Your task to perform on an android device: see sites visited before in the chrome app Image 0: 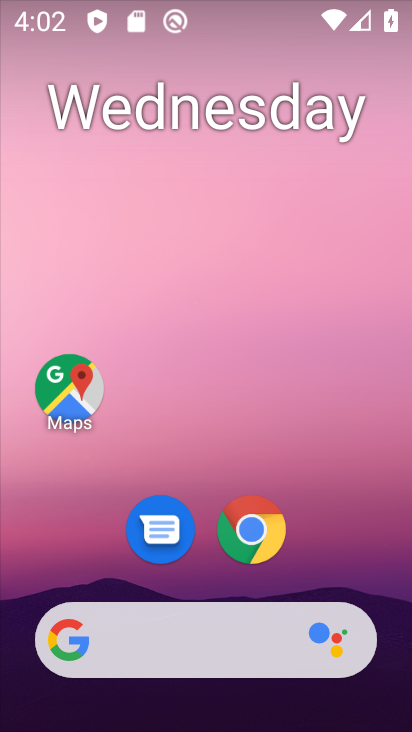
Step 0: drag from (219, 564) to (342, 46)
Your task to perform on an android device: see sites visited before in the chrome app Image 1: 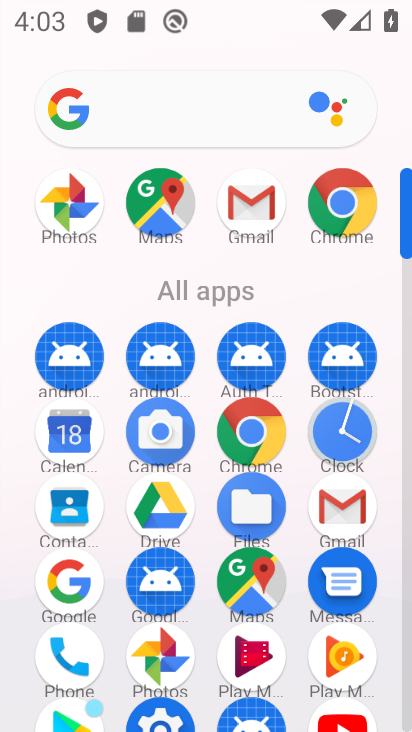
Step 1: click (341, 201)
Your task to perform on an android device: see sites visited before in the chrome app Image 2: 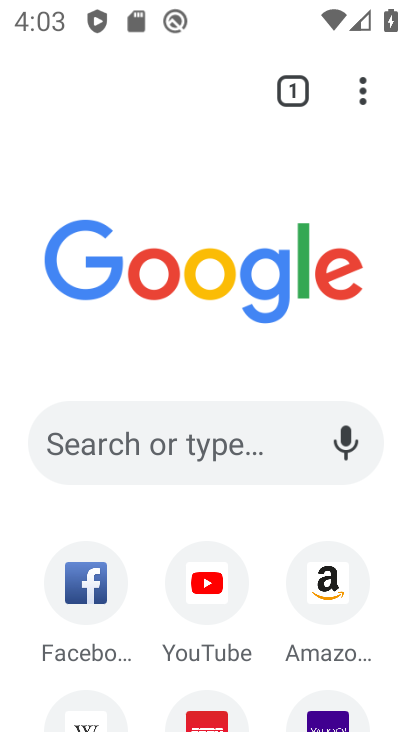
Step 2: task complete